Your task to perform on an android device: Open a new Chrome tab Image 0: 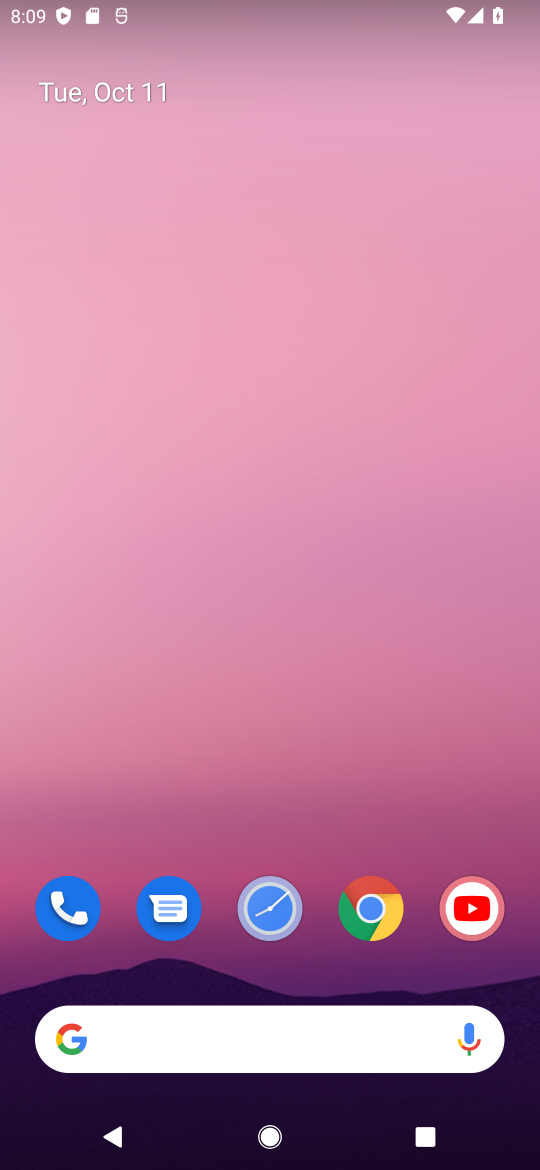
Step 0: click (371, 909)
Your task to perform on an android device: Open a new Chrome tab Image 1: 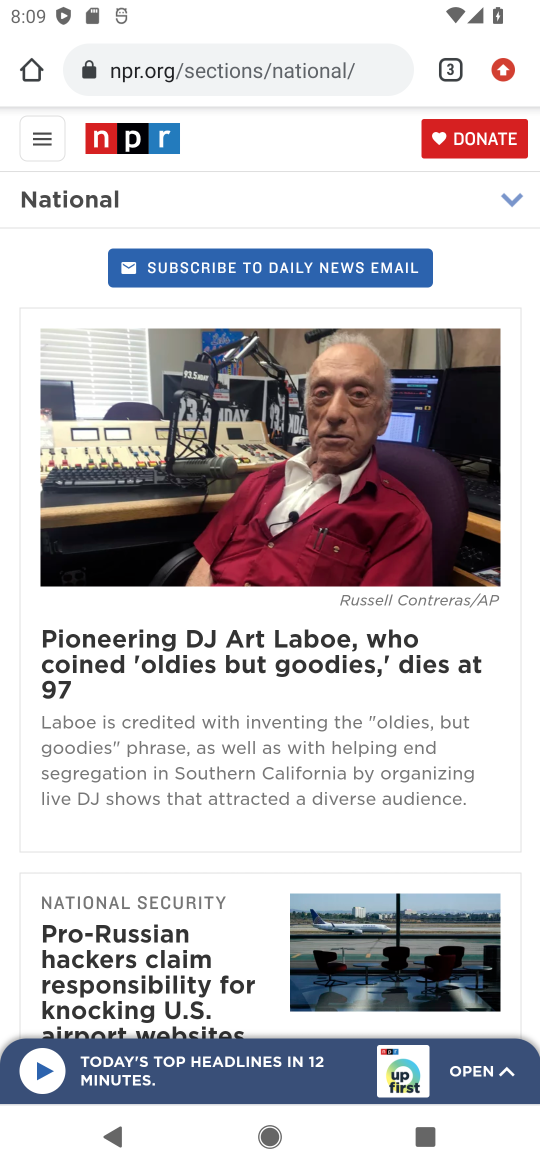
Step 1: click (503, 66)
Your task to perform on an android device: Open a new Chrome tab Image 2: 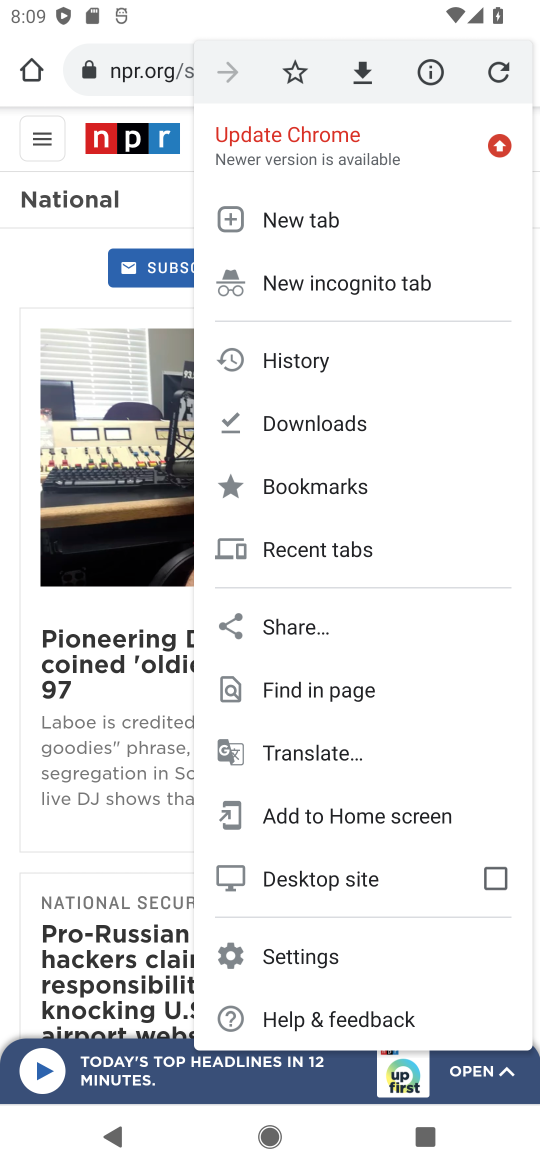
Step 2: click (316, 211)
Your task to perform on an android device: Open a new Chrome tab Image 3: 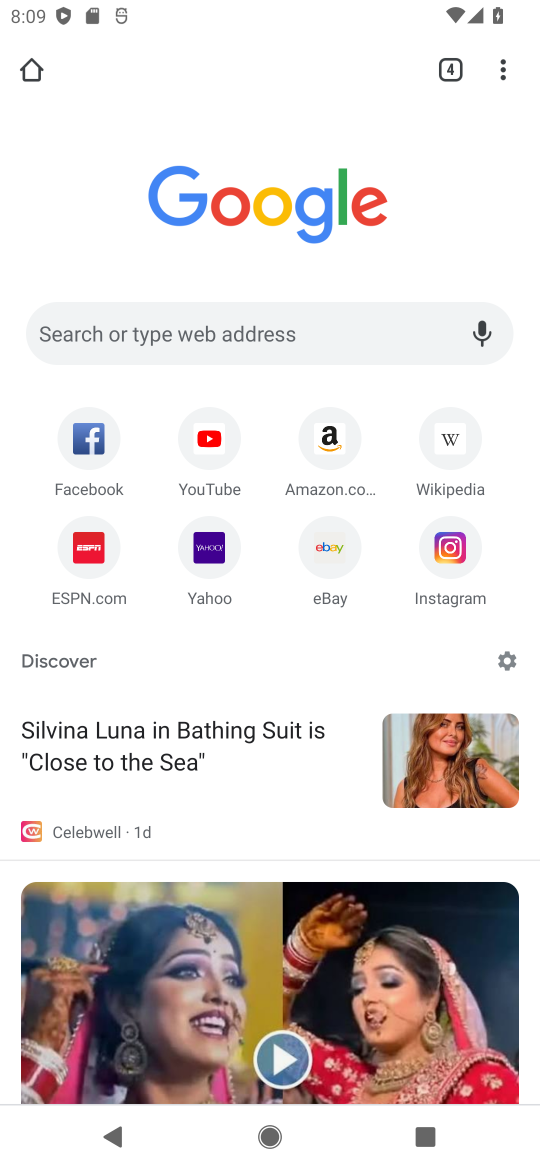
Step 3: task complete